Your task to perform on an android device: What is the news today? Image 0: 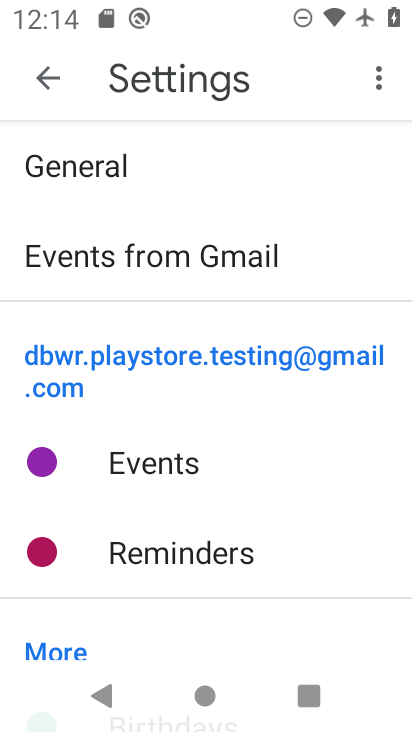
Step 0: press back button
Your task to perform on an android device: What is the news today? Image 1: 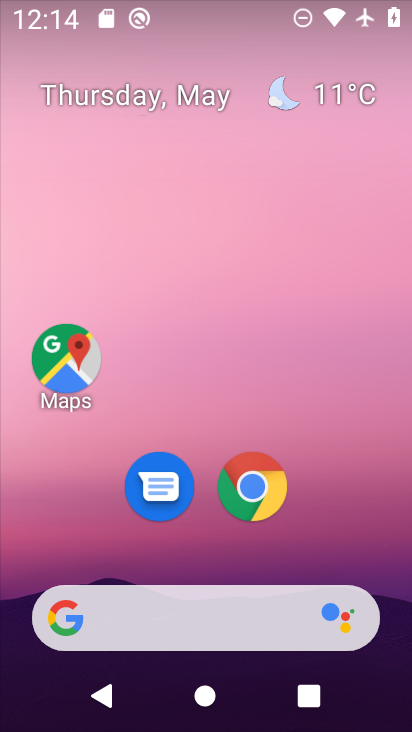
Step 1: drag from (359, 520) to (305, 68)
Your task to perform on an android device: What is the news today? Image 2: 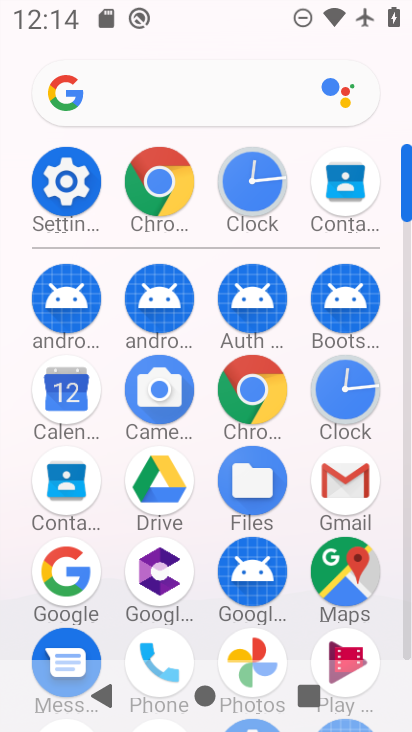
Step 2: click (156, 181)
Your task to perform on an android device: What is the news today? Image 3: 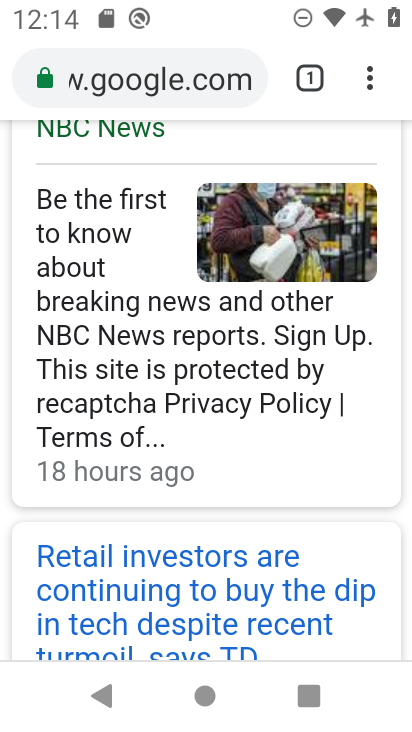
Step 3: click (165, 65)
Your task to perform on an android device: What is the news today? Image 4: 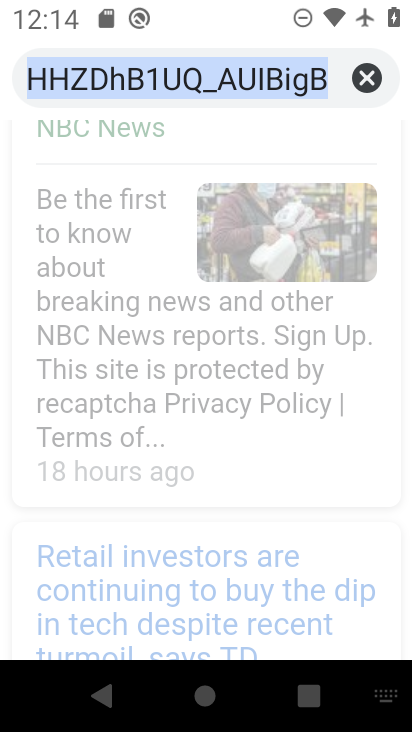
Step 4: click (376, 77)
Your task to perform on an android device: What is the news today? Image 5: 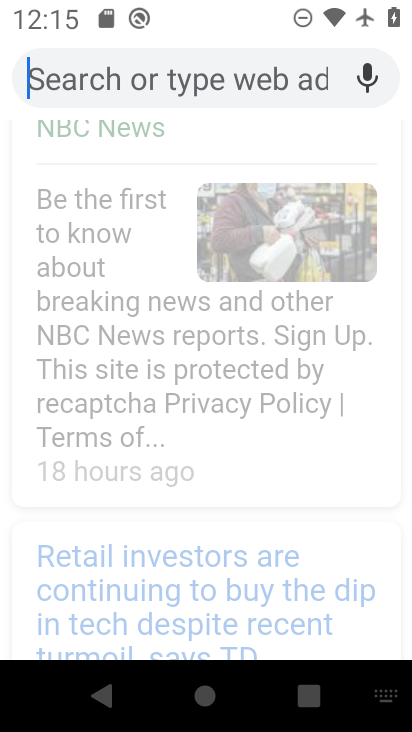
Step 5: type "What is the news today?"
Your task to perform on an android device: What is the news today? Image 6: 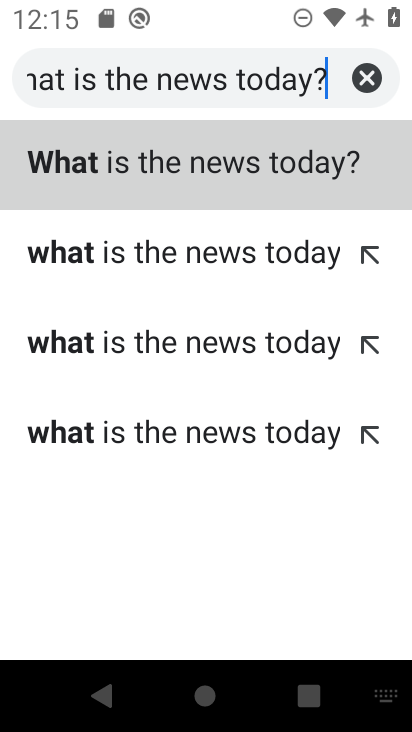
Step 6: type ""
Your task to perform on an android device: What is the news today? Image 7: 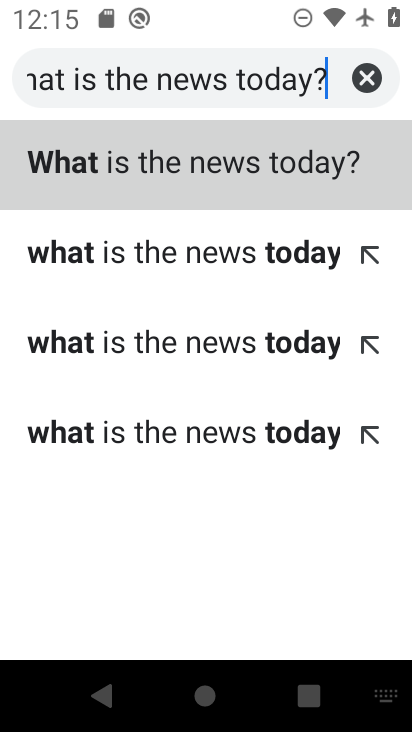
Step 7: click (259, 154)
Your task to perform on an android device: What is the news today? Image 8: 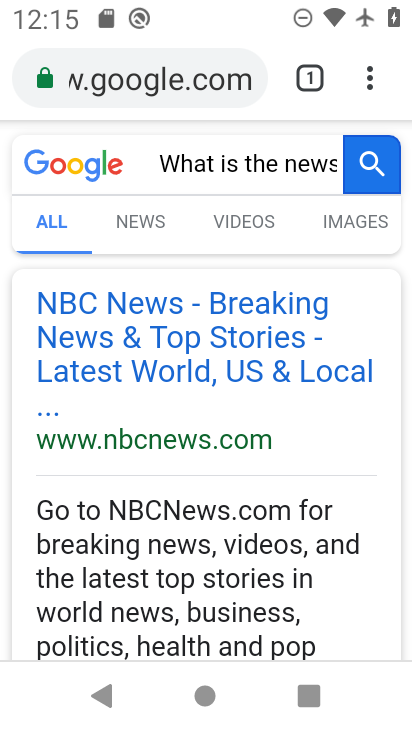
Step 8: click (136, 218)
Your task to perform on an android device: What is the news today? Image 9: 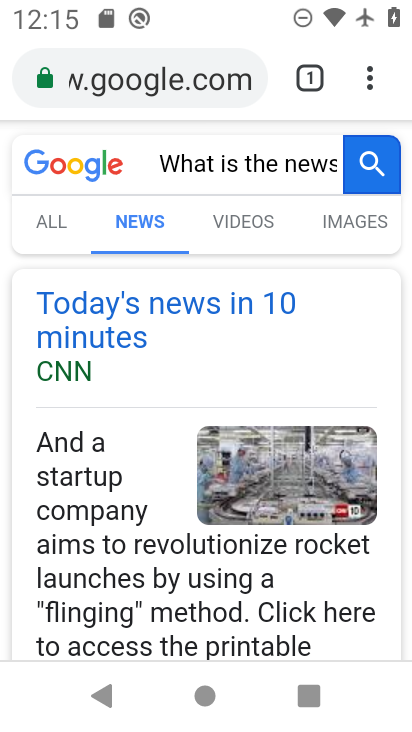
Step 9: task complete